Your task to perform on an android device: turn on the 12-hour format for clock Image 0: 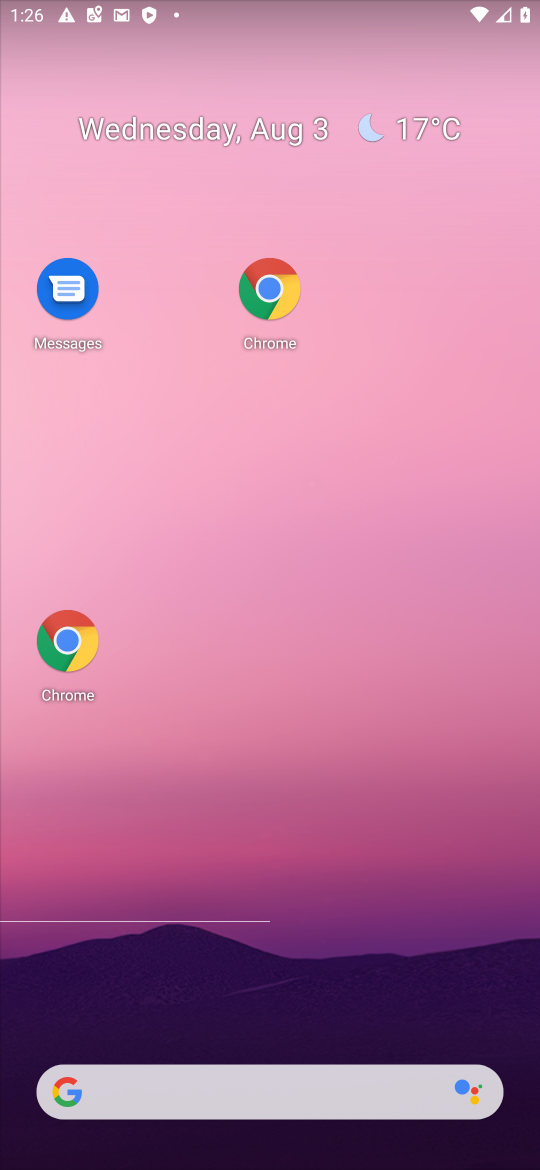
Step 0: drag from (324, 1037) to (297, 207)
Your task to perform on an android device: turn on the 12-hour format for clock Image 1: 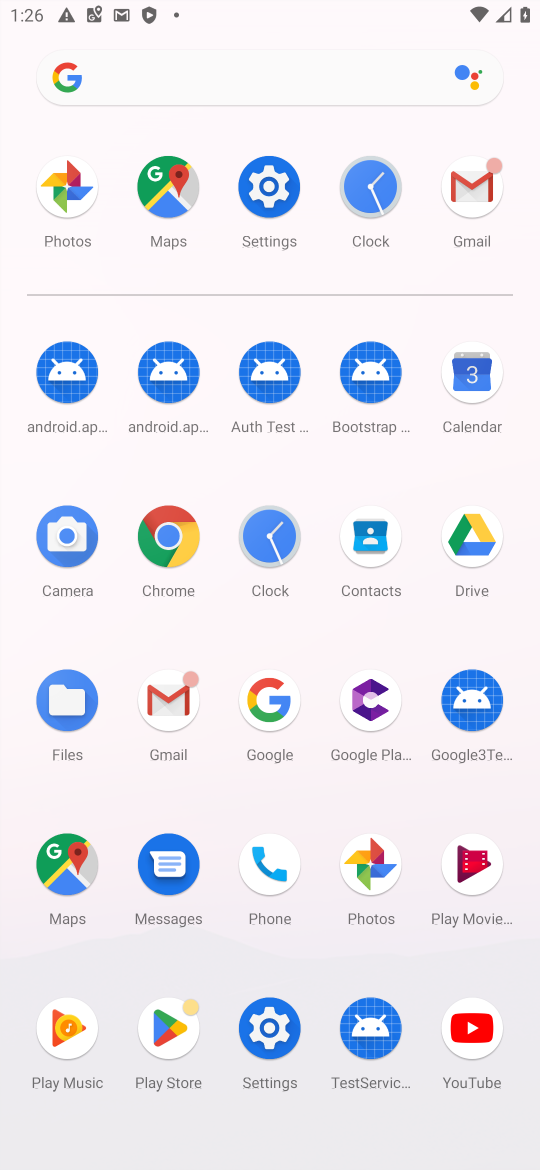
Step 1: click (361, 192)
Your task to perform on an android device: turn on the 12-hour format for clock Image 2: 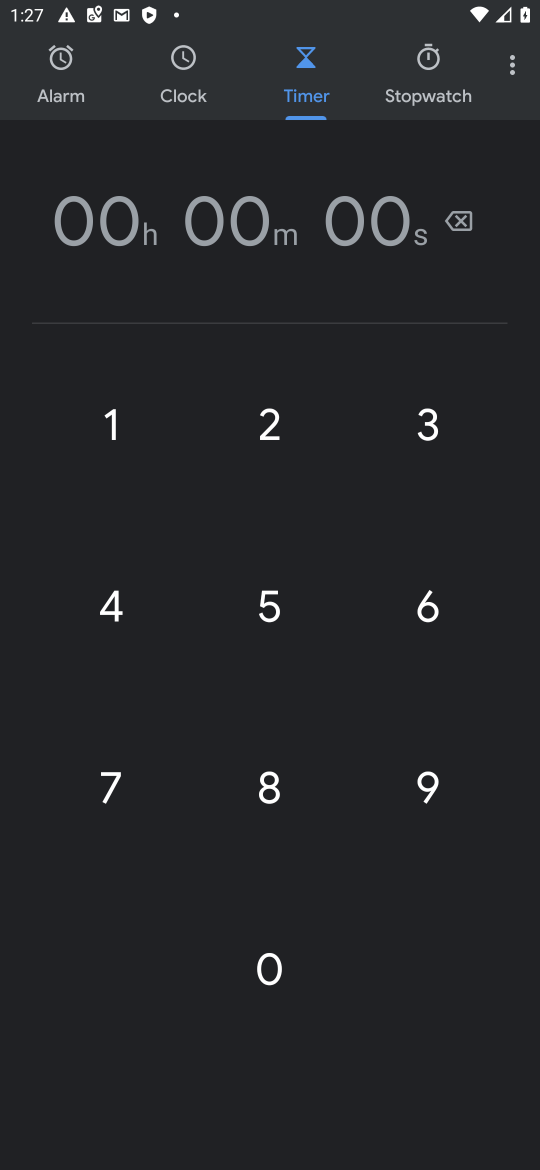
Step 2: click (516, 80)
Your task to perform on an android device: turn on the 12-hour format for clock Image 3: 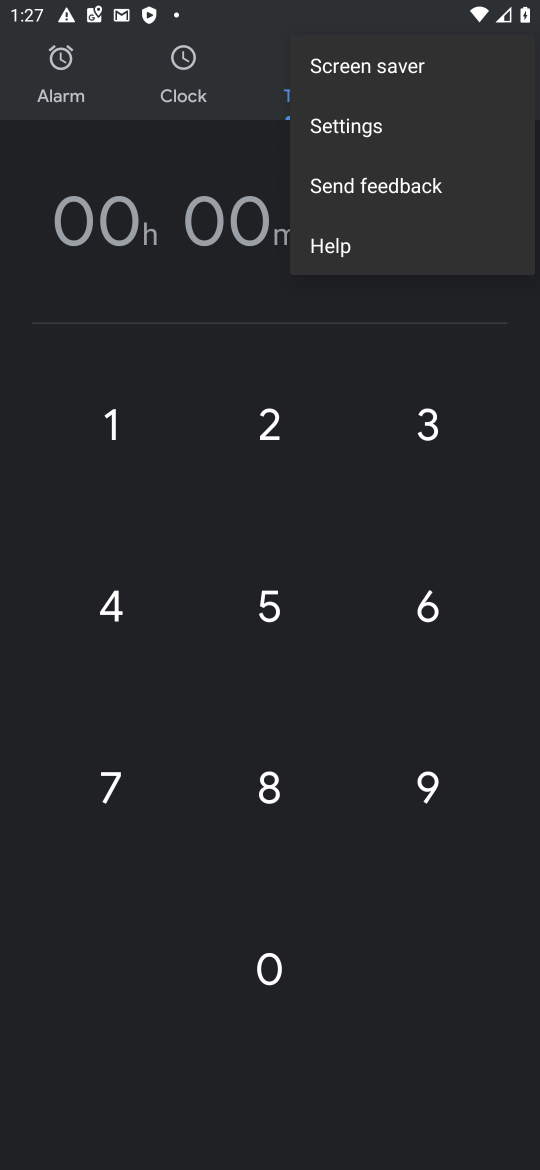
Step 3: click (352, 138)
Your task to perform on an android device: turn on the 12-hour format for clock Image 4: 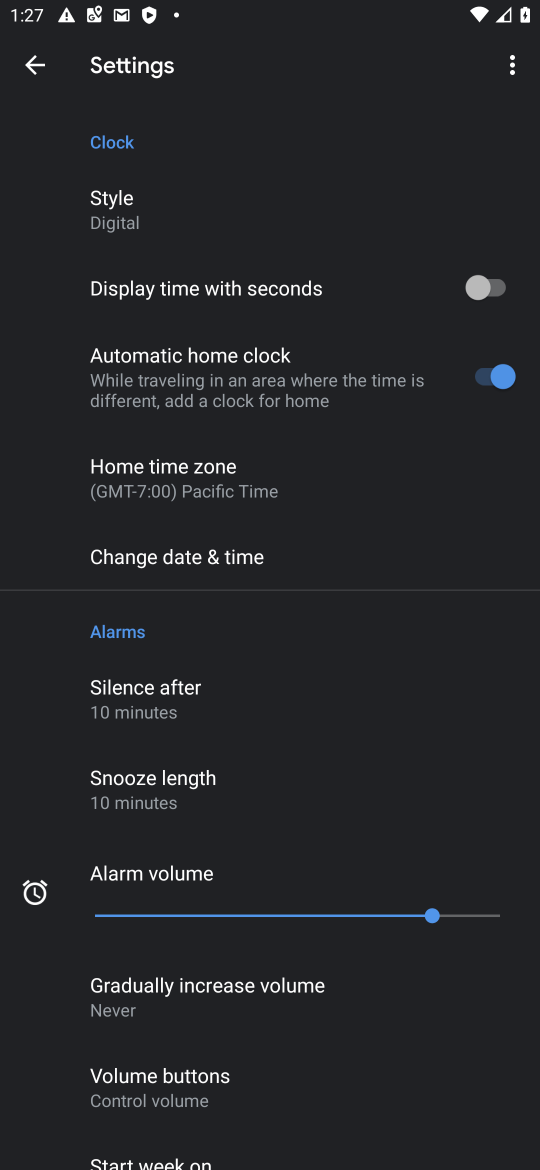
Step 4: task complete